Your task to perform on an android device: Toggle the flashlight Image 0: 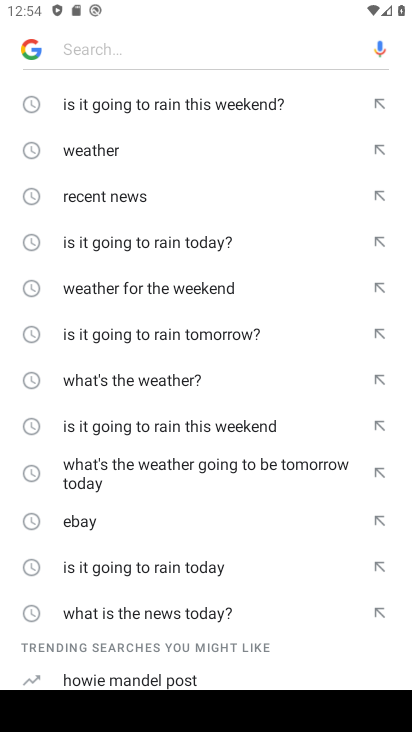
Step 0: press home button
Your task to perform on an android device: Toggle the flashlight Image 1: 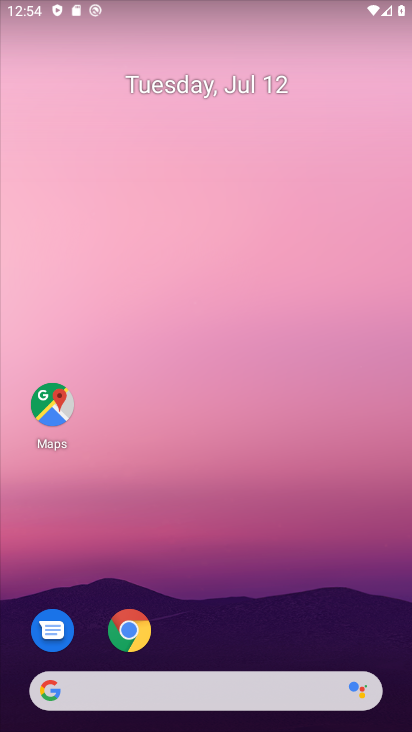
Step 1: drag from (227, 17) to (208, 356)
Your task to perform on an android device: Toggle the flashlight Image 2: 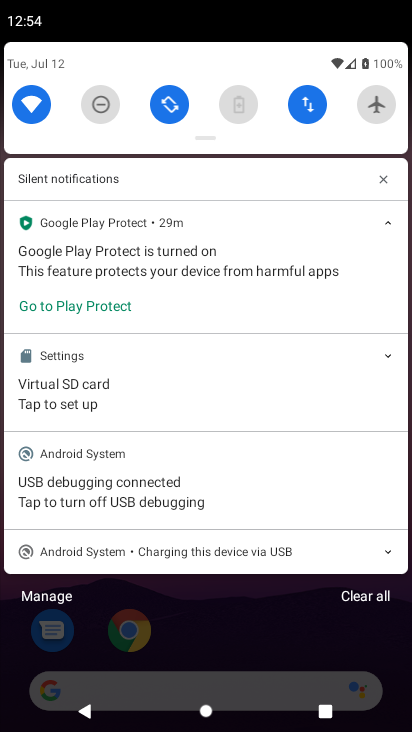
Step 2: drag from (201, 138) to (192, 431)
Your task to perform on an android device: Toggle the flashlight Image 3: 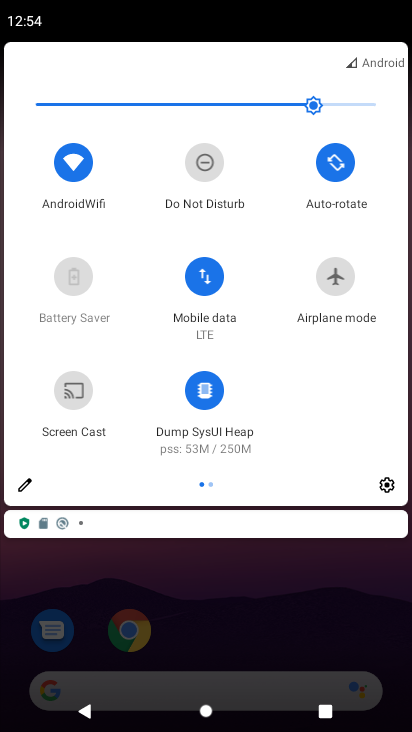
Step 3: click (24, 485)
Your task to perform on an android device: Toggle the flashlight Image 4: 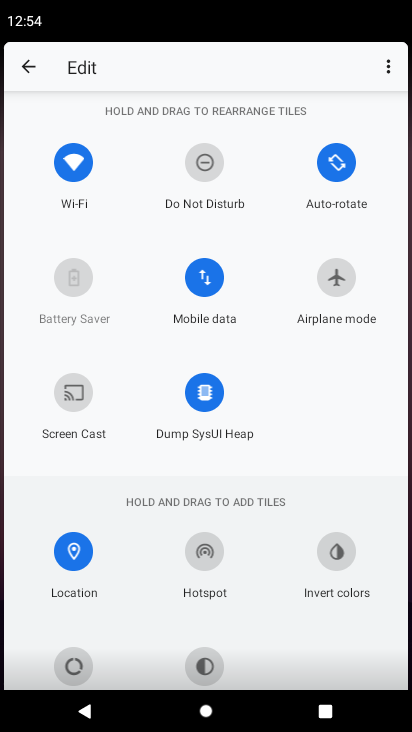
Step 4: task complete